Your task to perform on an android device: Turn on the flashlight Image 0: 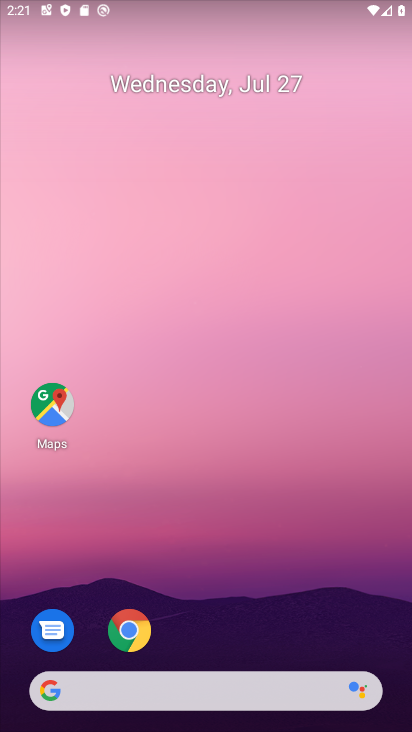
Step 0: drag from (391, 715) to (303, 126)
Your task to perform on an android device: Turn on the flashlight Image 1: 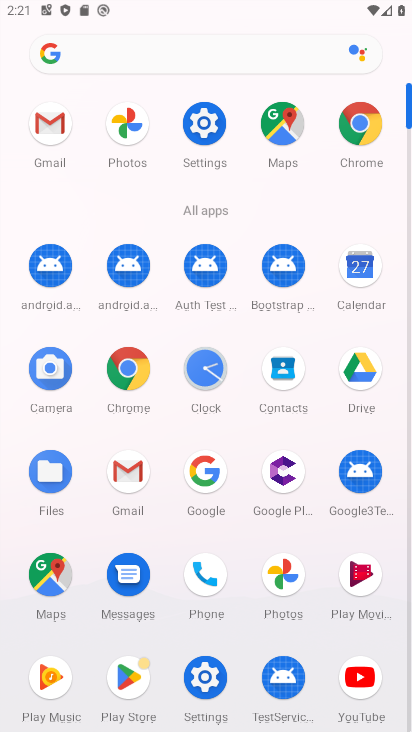
Step 1: click (210, 670)
Your task to perform on an android device: Turn on the flashlight Image 2: 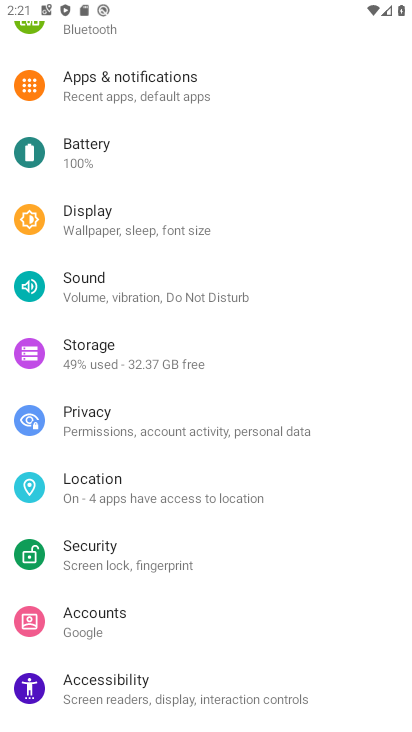
Step 2: click (118, 225)
Your task to perform on an android device: Turn on the flashlight Image 3: 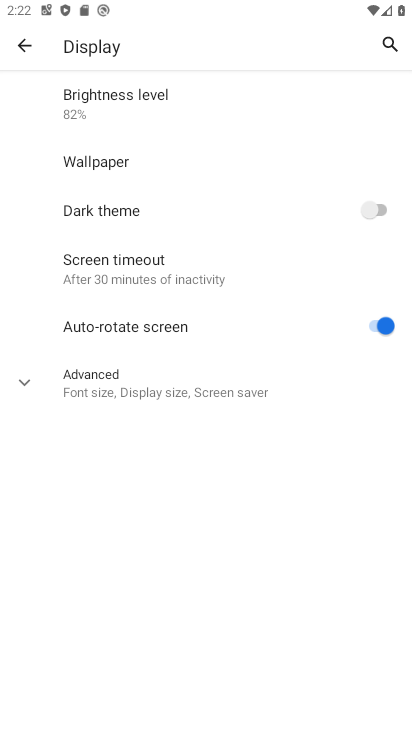
Step 3: click (154, 265)
Your task to perform on an android device: Turn on the flashlight Image 4: 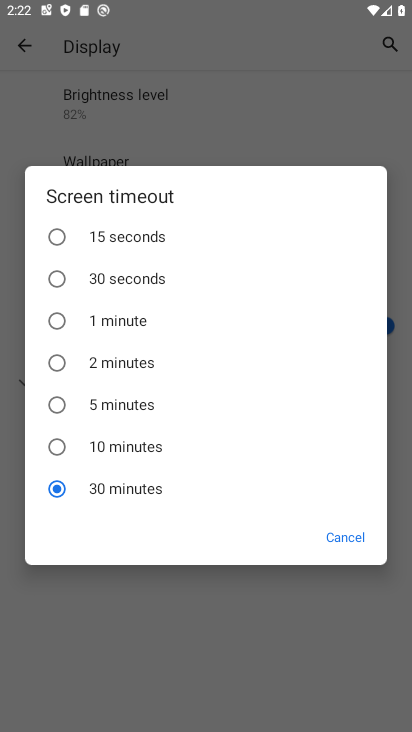
Step 4: click (255, 68)
Your task to perform on an android device: Turn on the flashlight Image 5: 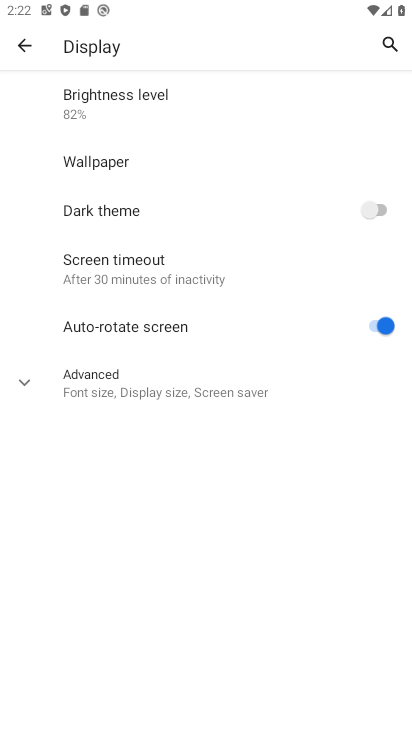
Step 5: click (36, 373)
Your task to perform on an android device: Turn on the flashlight Image 6: 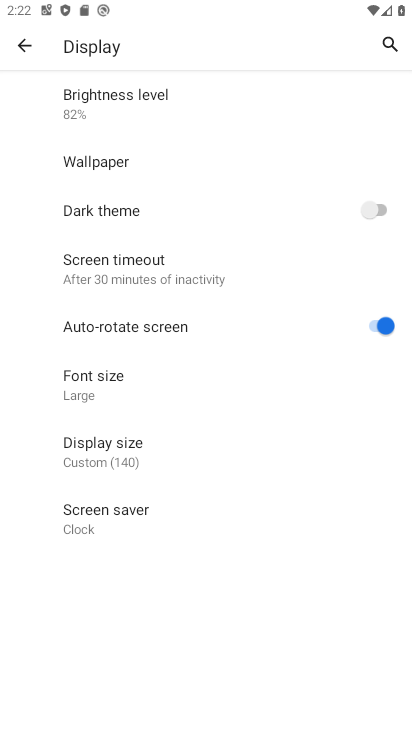
Step 6: task complete